Your task to perform on an android device: Go to display settings Image 0: 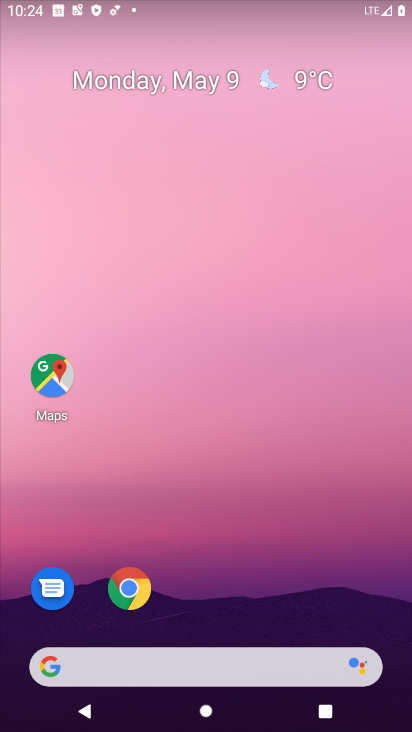
Step 0: press home button
Your task to perform on an android device: Go to display settings Image 1: 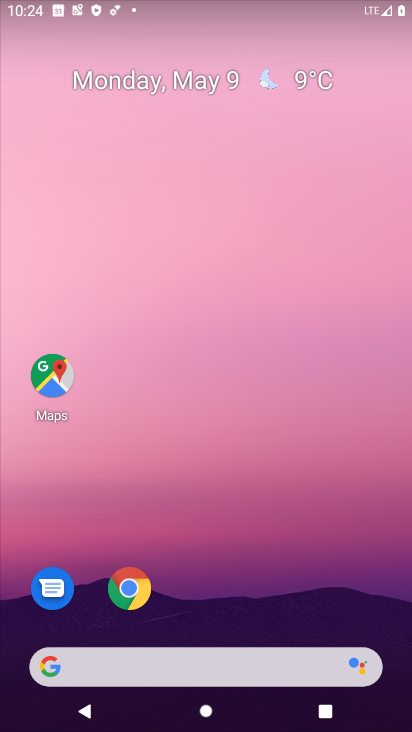
Step 1: drag from (193, 645) to (313, 134)
Your task to perform on an android device: Go to display settings Image 2: 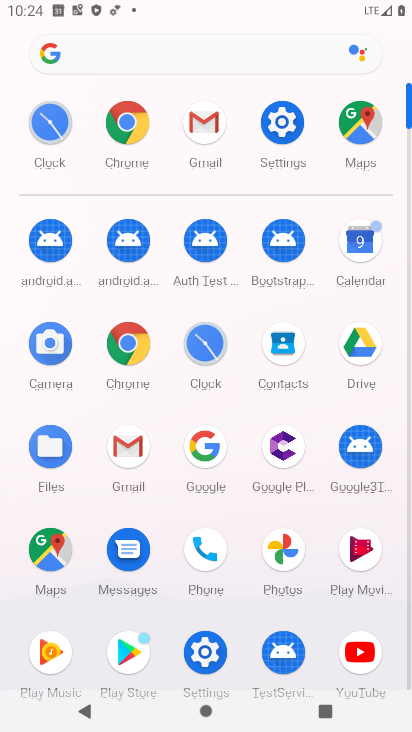
Step 2: click (280, 121)
Your task to perform on an android device: Go to display settings Image 3: 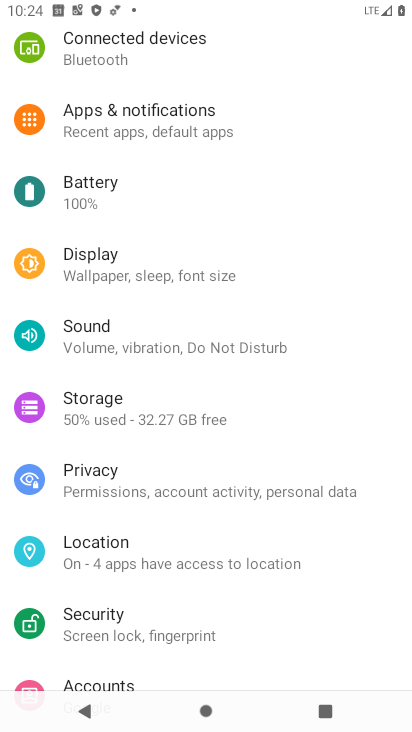
Step 3: click (164, 270)
Your task to perform on an android device: Go to display settings Image 4: 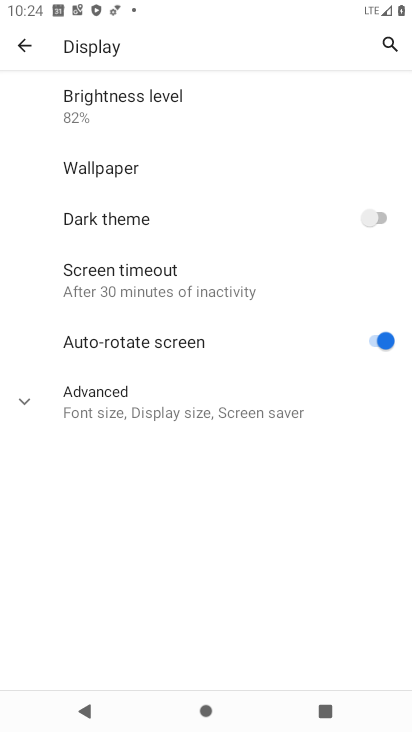
Step 4: task complete